Your task to perform on an android device: Show me popular games on the Play Store Image 0: 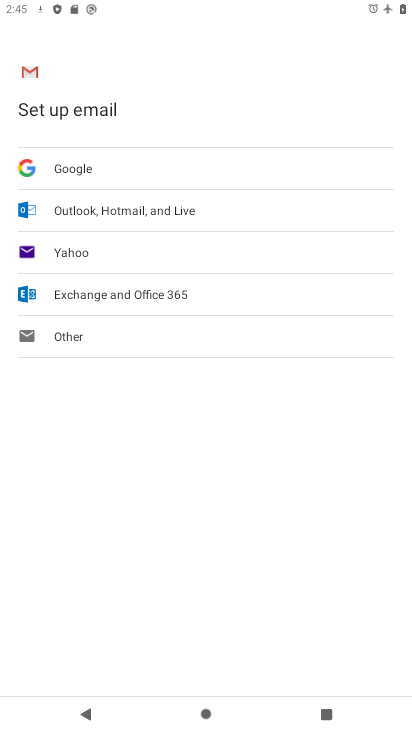
Step 0: press home button
Your task to perform on an android device: Show me popular games on the Play Store Image 1: 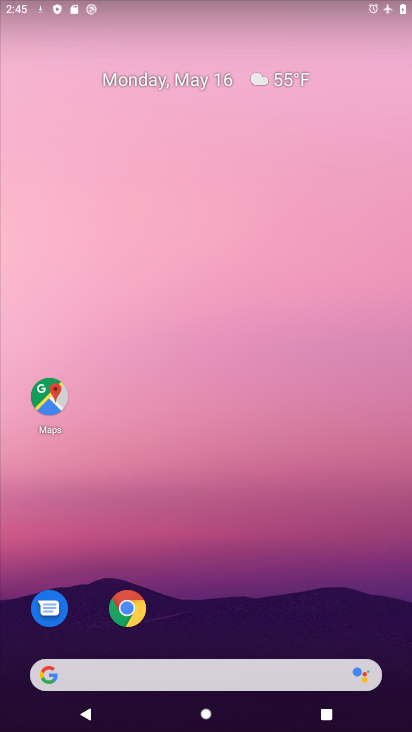
Step 1: drag from (220, 631) to (187, 152)
Your task to perform on an android device: Show me popular games on the Play Store Image 2: 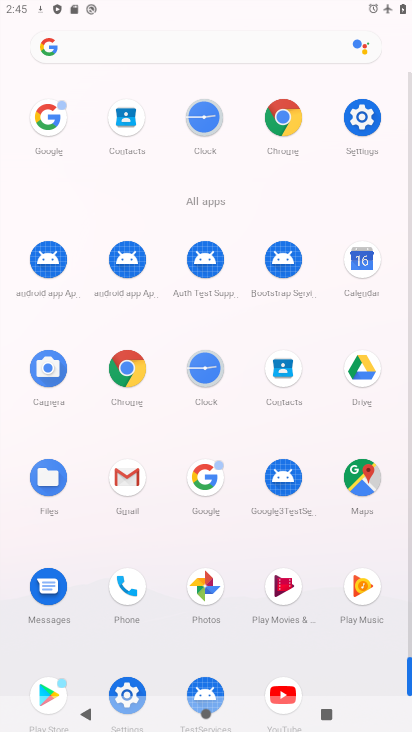
Step 2: drag from (178, 488) to (195, 233)
Your task to perform on an android device: Show me popular games on the Play Store Image 3: 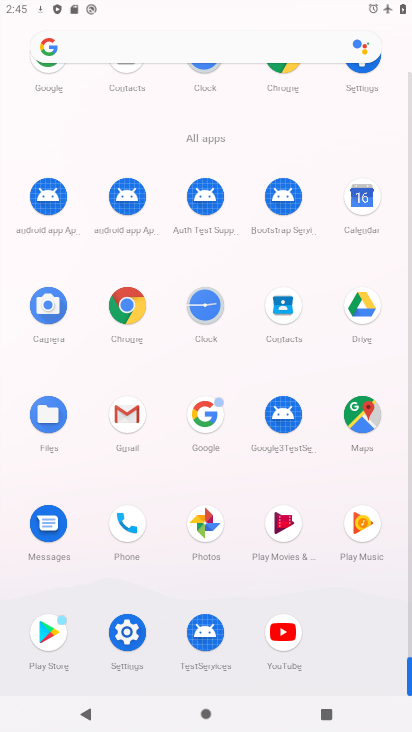
Step 3: click (52, 634)
Your task to perform on an android device: Show me popular games on the Play Store Image 4: 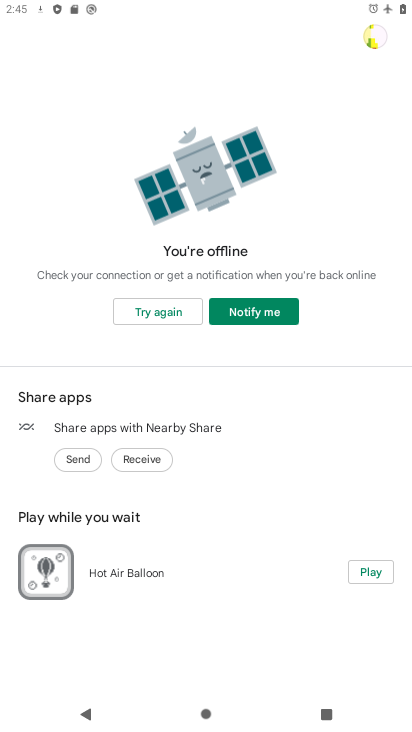
Step 4: task complete